Your task to perform on an android device: star an email in the gmail app Image 0: 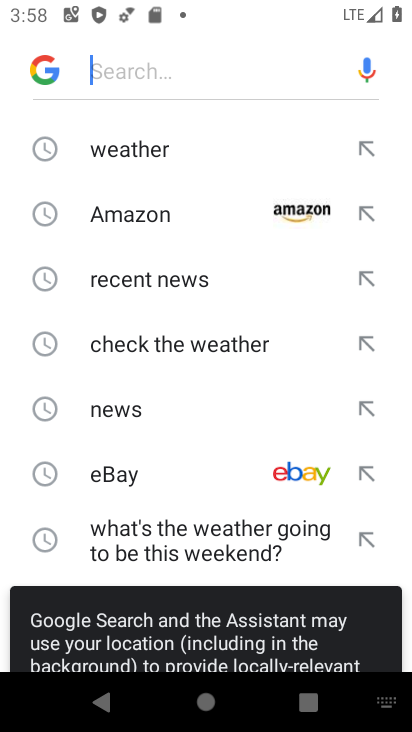
Step 0: press home button
Your task to perform on an android device: star an email in the gmail app Image 1: 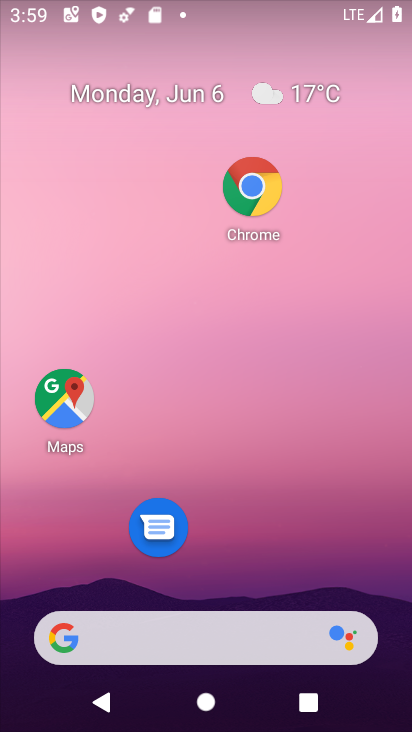
Step 1: drag from (186, 516) to (145, 195)
Your task to perform on an android device: star an email in the gmail app Image 2: 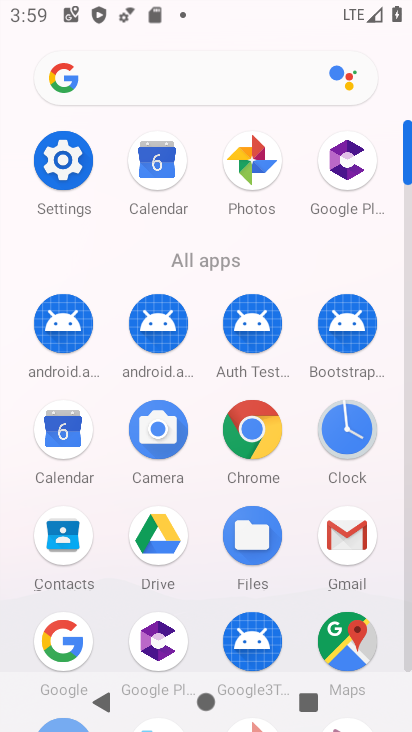
Step 2: click (340, 541)
Your task to perform on an android device: star an email in the gmail app Image 3: 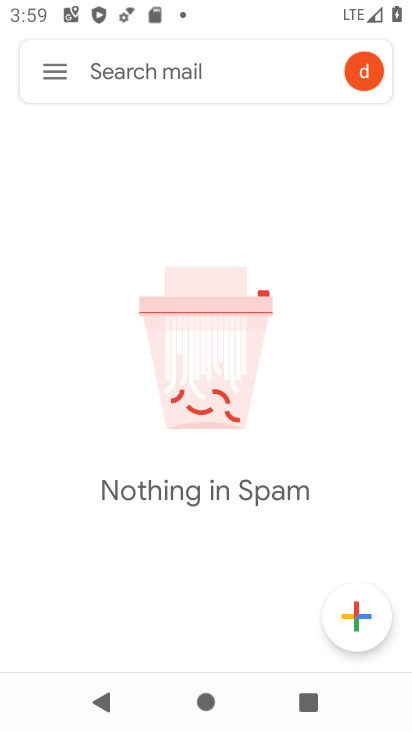
Step 3: click (48, 77)
Your task to perform on an android device: star an email in the gmail app Image 4: 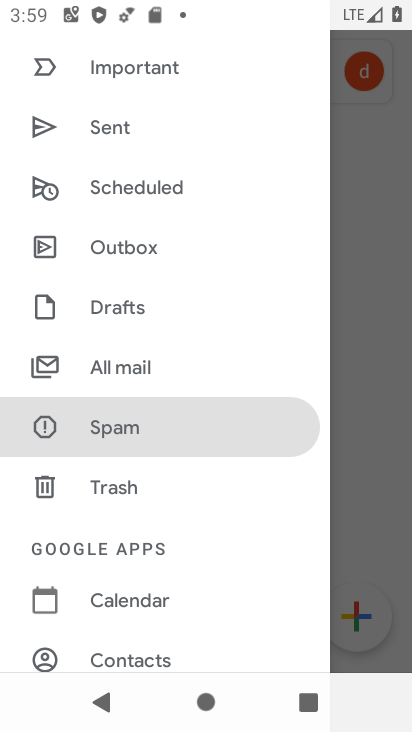
Step 4: drag from (149, 102) to (184, 467)
Your task to perform on an android device: star an email in the gmail app Image 5: 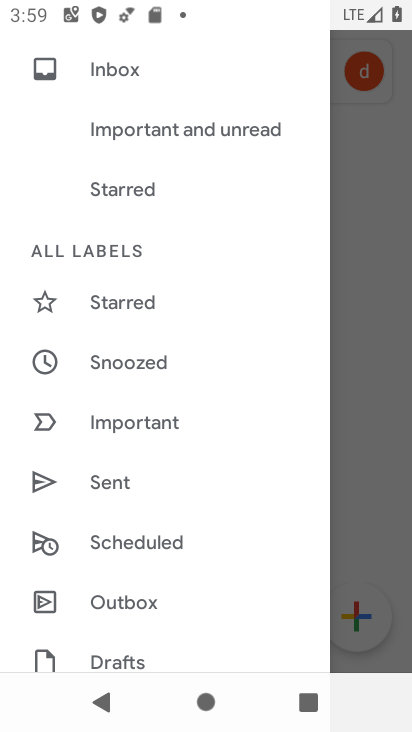
Step 5: click (132, 68)
Your task to perform on an android device: star an email in the gmail app Image 6: 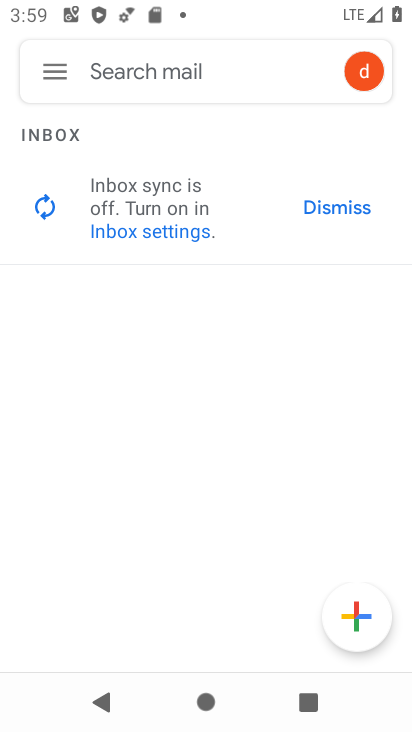
Step 6: task complete